Your task to perform on an android device: change the clock display to analog Image 0: 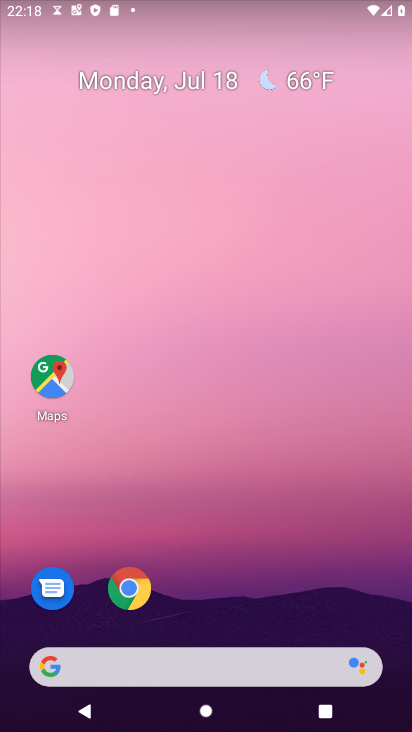
Step 0: press home button
Your task to perform on an android device: change the clock display to analog Image 1: 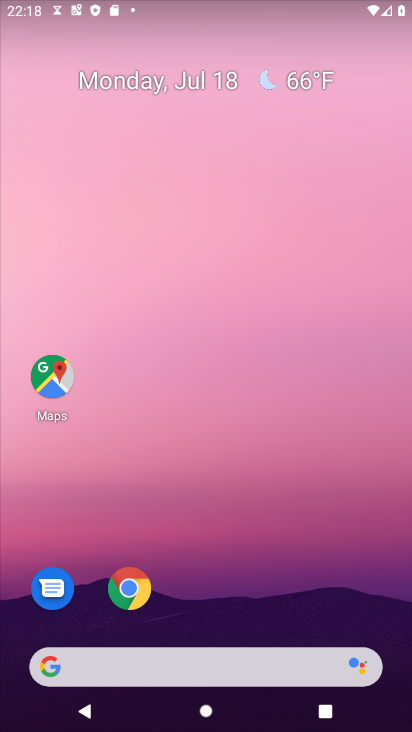
Step 1: drag from (159, 675) to (398, 163)
Your task to perform on an android device: change the clock display to analog Image 2: 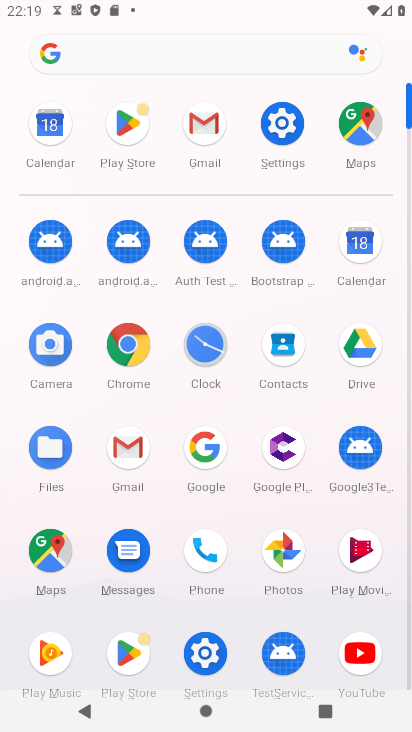
Step 2: click (204, 352)
Your task to perform on an android device: change the clock display to analog Image 3: 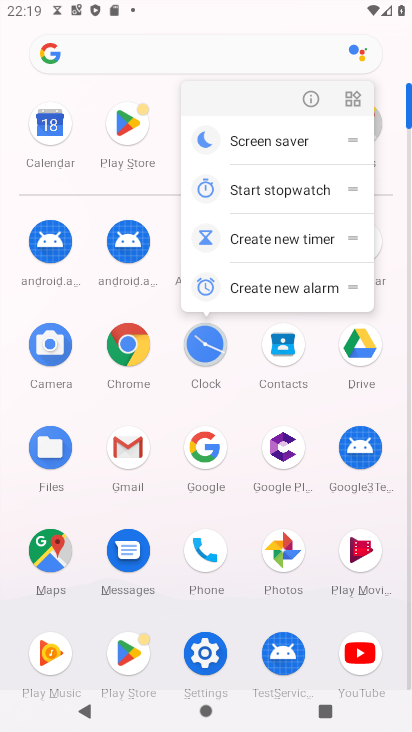
Step 3: click (204, 348)
Your task to perform on an android device: change the clock display to analog Image 4: 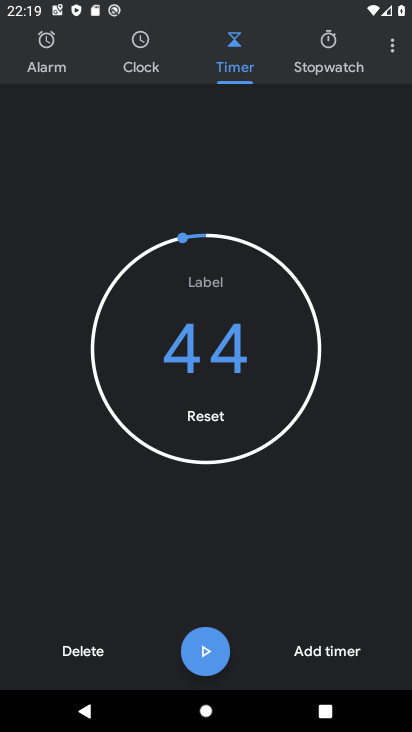
Step 4: click (394, 53)
Your task to perform on an android device: change the clock display to analog Image 5: 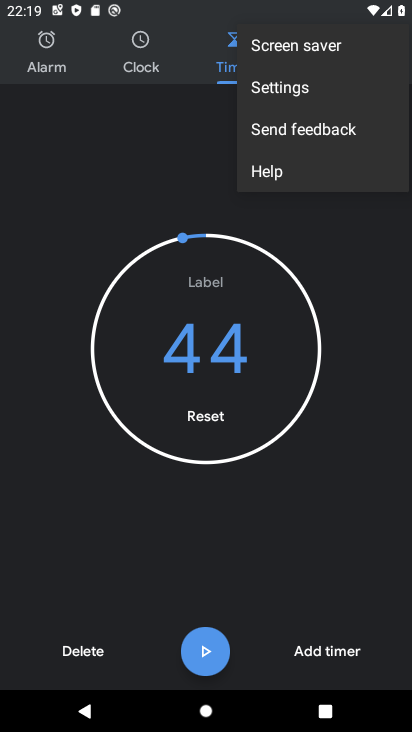
Step 5: click (295, 102)
Your task to perform on an android device: change the clock display to analog Image 6: 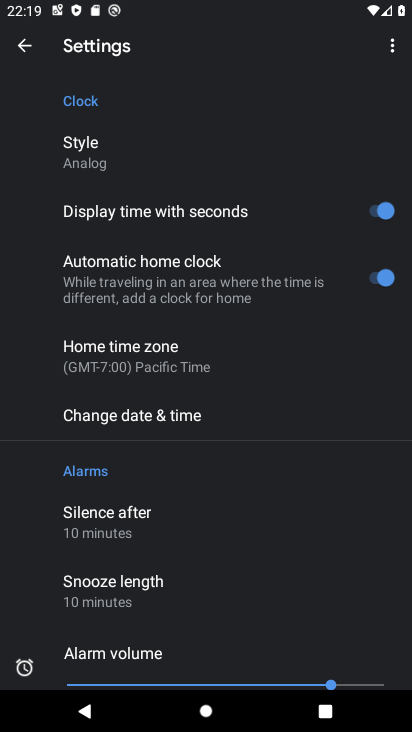
Step 6: task complete